Your task to perform on an android device: change alarm snooze length Image 0: 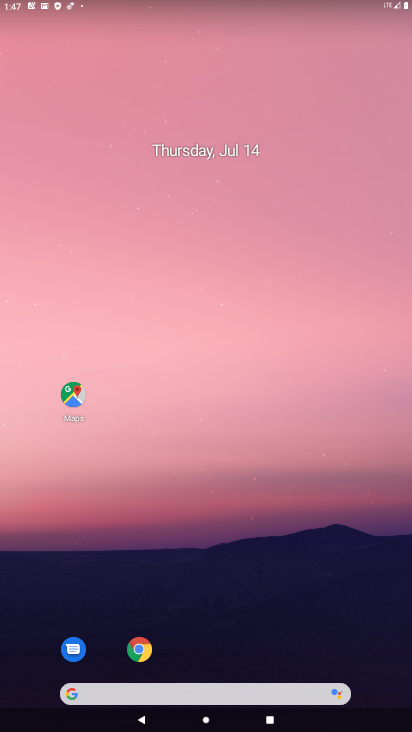
Step 0: drag from (381, 648) to (112, 22)
Your task to perform on an android device: change alarm snooze length Image 1: 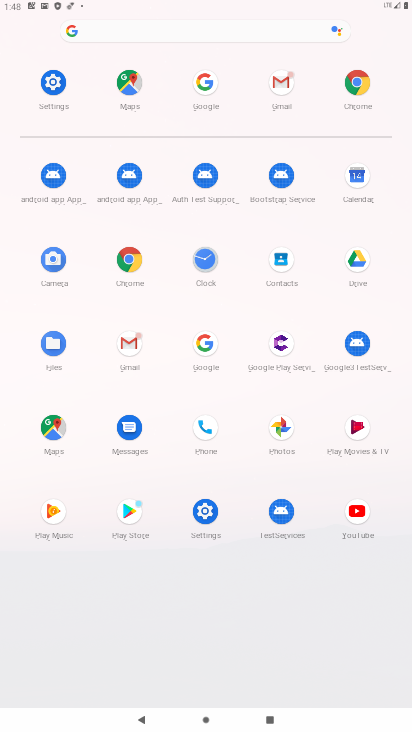
Step 1: click (207, 259)
Your task to perform on an android device: change alarm snooze length Image 2: 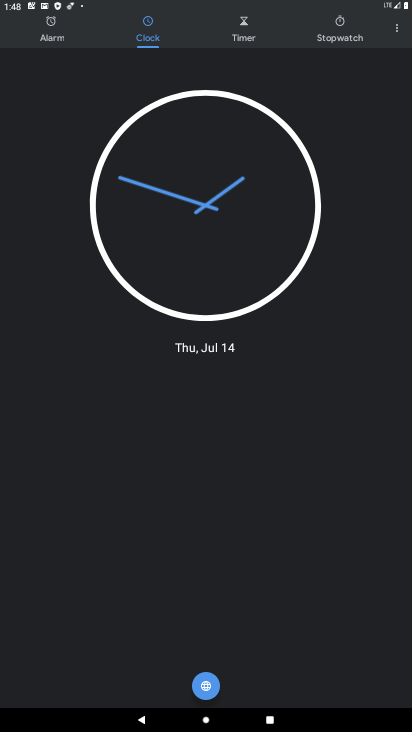
Step 2: click (391, 28)
Your task to perform on an android device: change alarm snooze length Image 3: 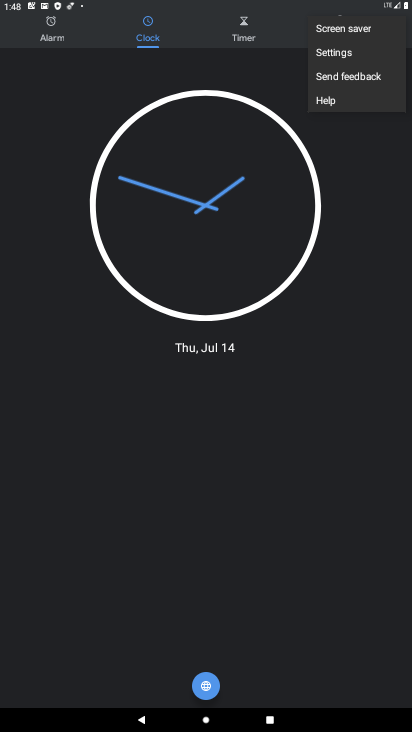
Step 3: click (351, 57)
Your task to perform on an android device: change alarm snooze length Image 4: 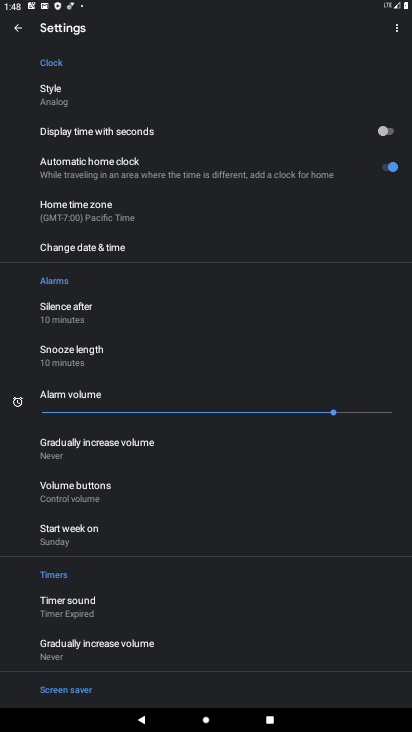
Step 4: click (72, 360)
Your task to perform on an android device: change alarm snooze length Image 5: 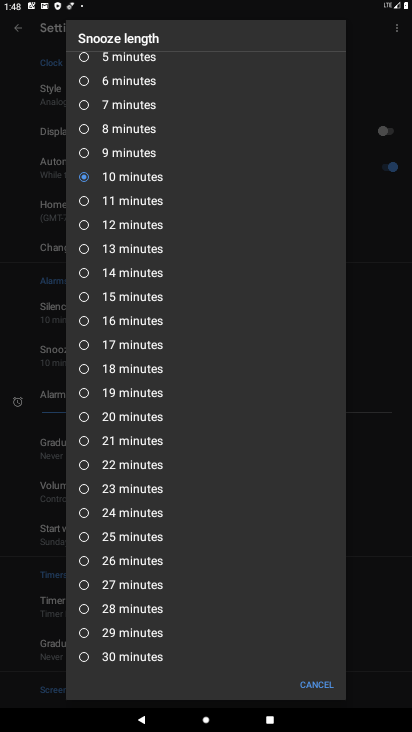
Step 5: click (87, 412)
Your task to perform on an android device: change alarm snooze length Image 6: 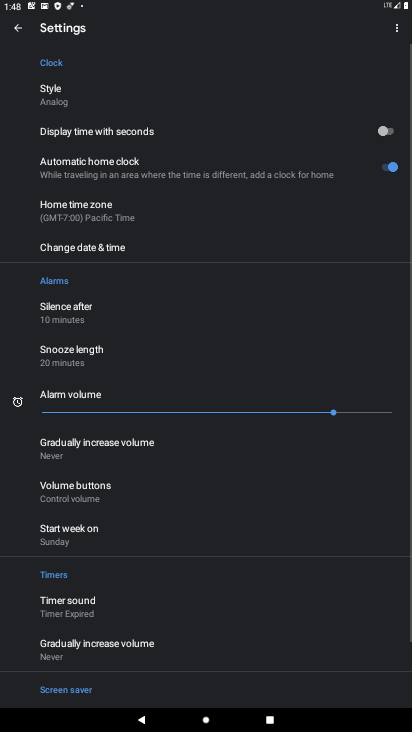
Step 6: task complete